Your task to perform on an android device: Go to Amazon Image 0: 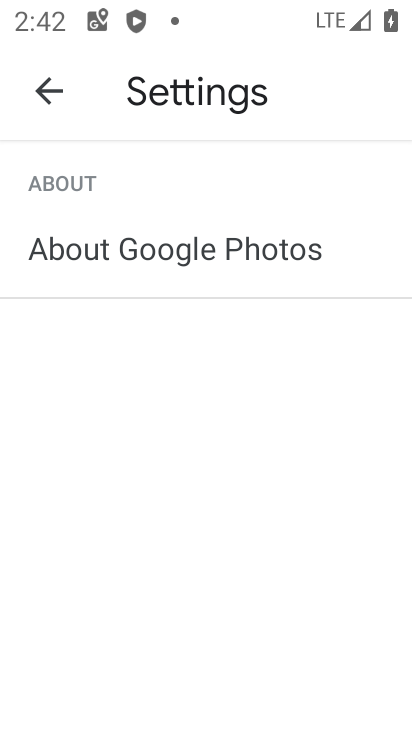
Step 0: press back button
Your task to perform on an android device: Go to Amazon Image 1: 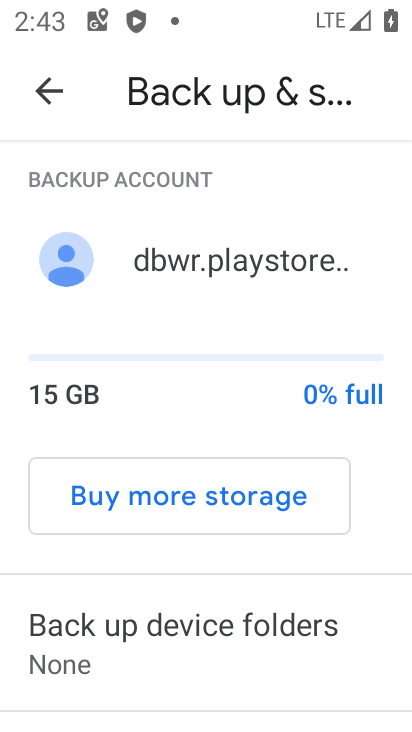
Step 1: press home button
Your task to perform on an android device: Go to Amazon Image 2: 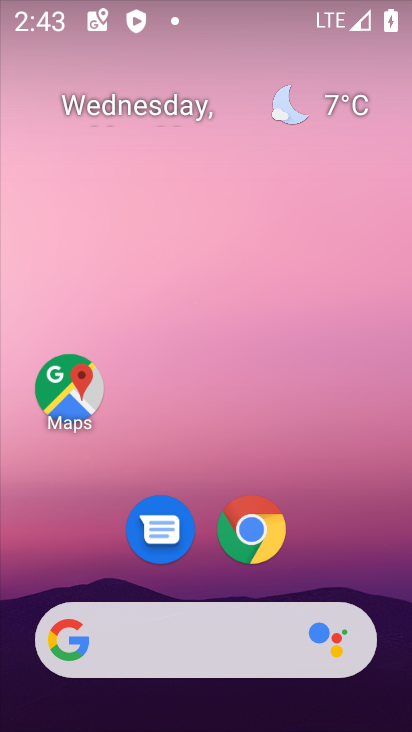
Step 2: click (235, 523)
Your task to perform on an android device: Go to Amazon Image 3: 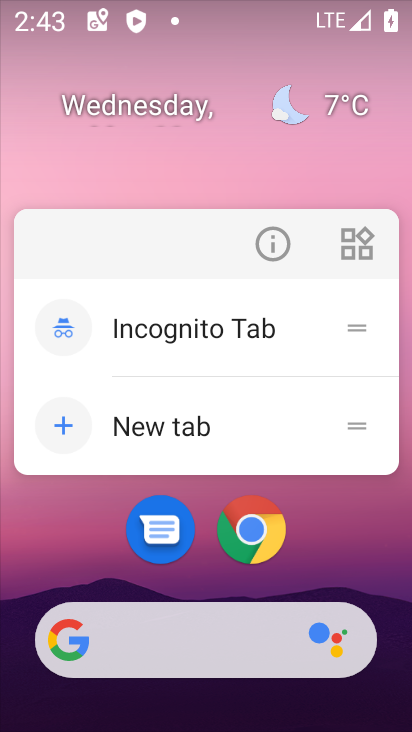
Step 3: click (238, 532)
Your task to perform on an android device: Go to Amazon Image 4: 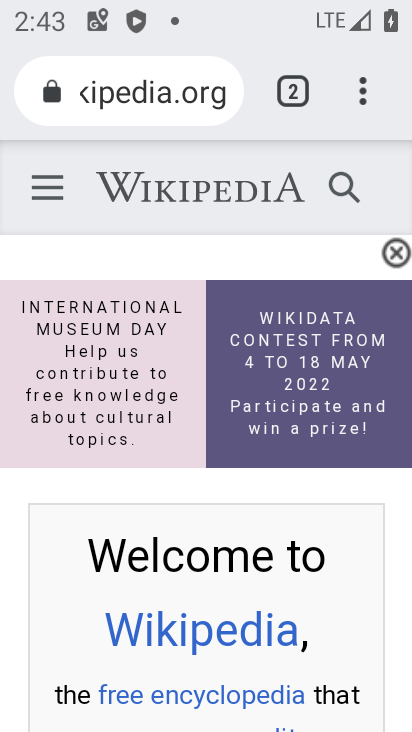
Step 4: click (304, 90)
Your task to perform on an android device: Go to Amazon Image 5: 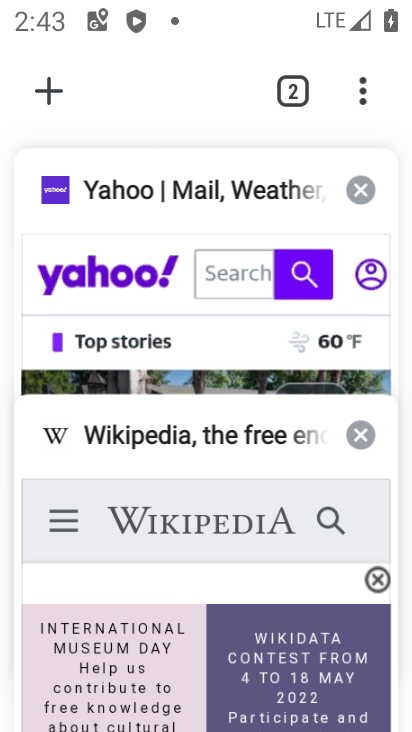
Step 5: click (353, 431)
Your task to perform on an android device: Go to Amazon Image 6: 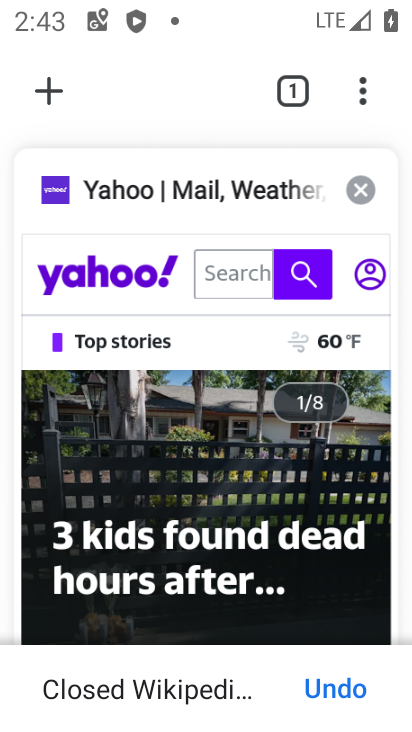
Step 6: click (366, 194)
Your task to perform on an android device: Go to Amazon Image 7: 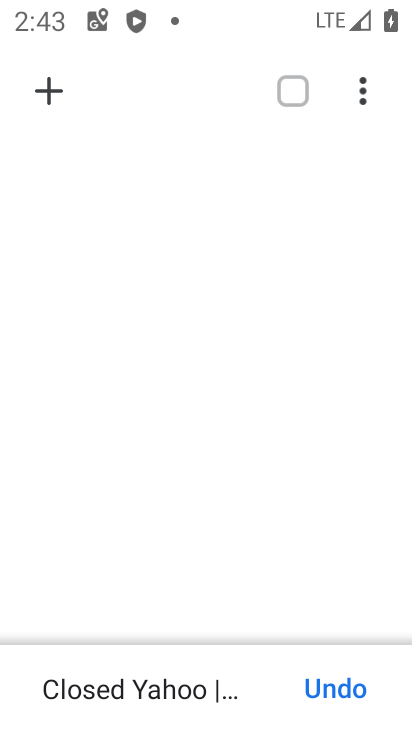
Step 7: click (40, 89)
Your task to perform on an android device: Go to Amazon Image 8: 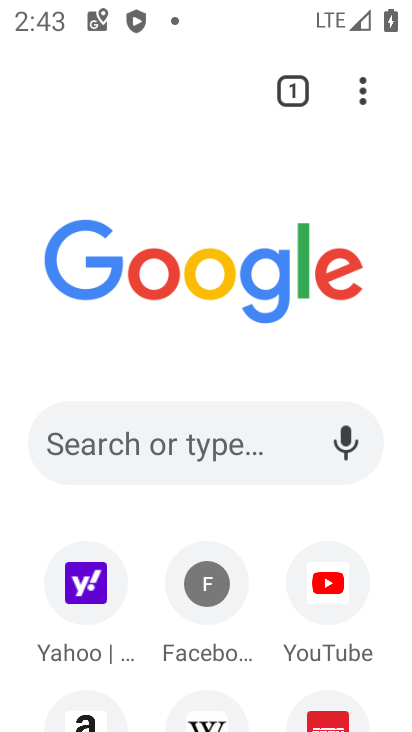
Step 8: drag from (196, 664) to (323, 201)
Your task to perform on an android device: Go to Amazon Image 9: 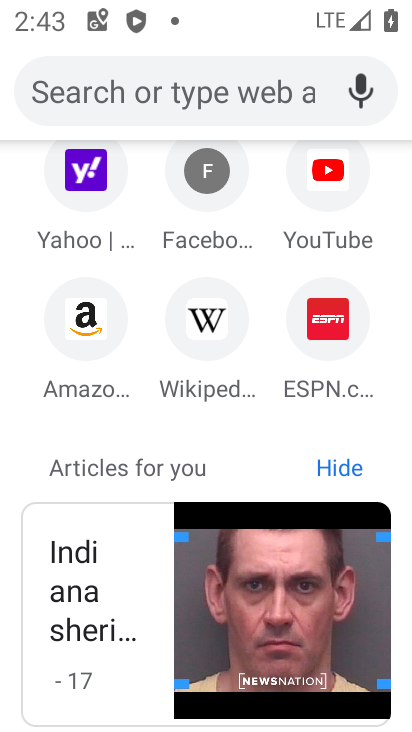
Step 9: click (87, 298)
Your task to perform on an android device: Go to Amazon Image 10: 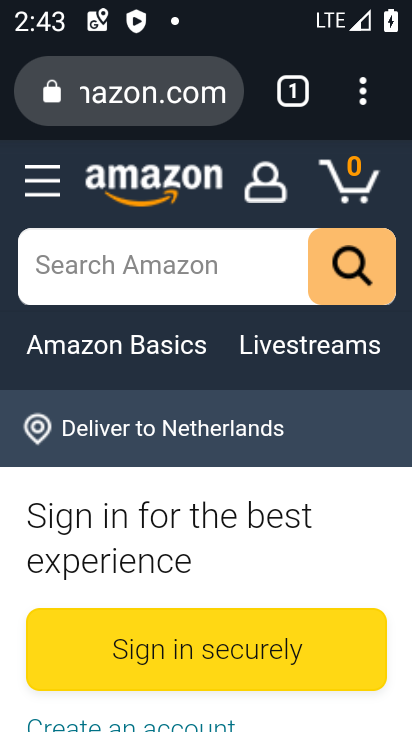
Step 10: task complete